Your task to perform on an android device: Go to Yahoo.com Image 0: 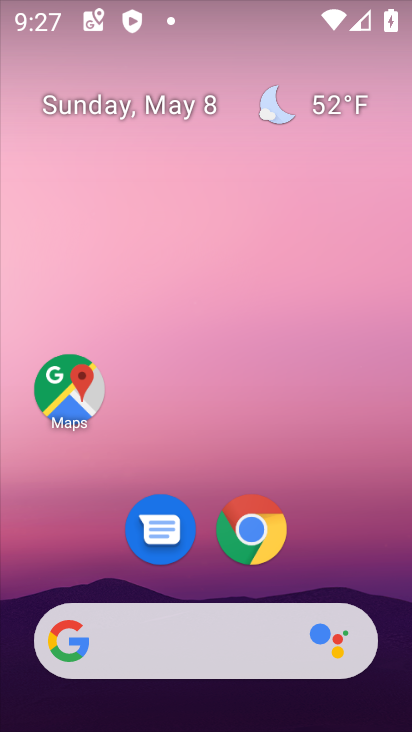
Step 0: drag from (372, 569) to (379, 137)
Your task to perform on an android device: Go to Yahoo.com Image 1: 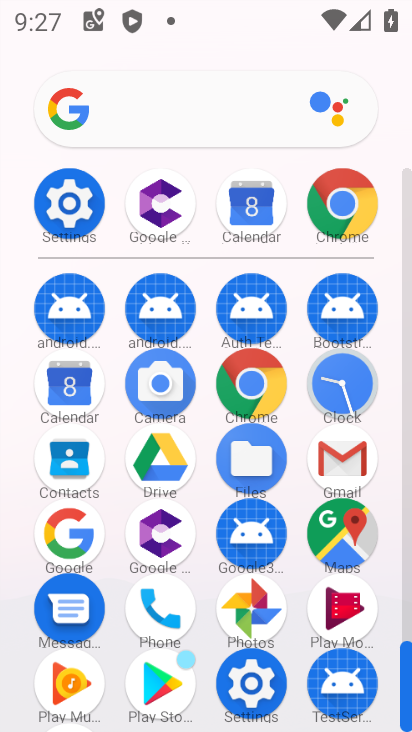
Step 1: drag from (193, 641) to (220, 350)
Your task to perform on an android device: Go to Yahoo.com Image 2: 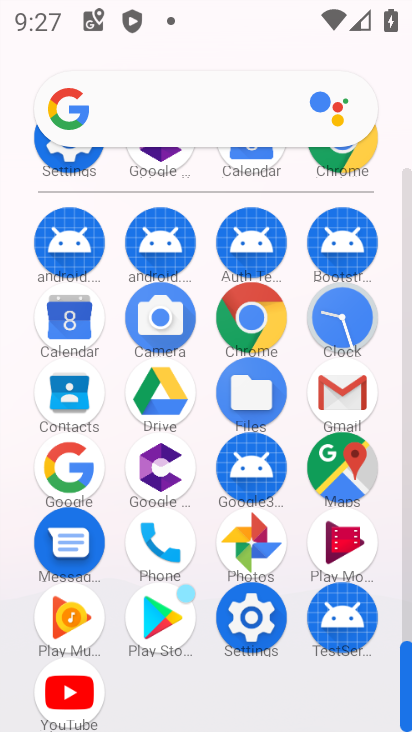
Step 2: click (245, 299)
Your task to perform on an android device: Go to Yahoo.com Image 3: 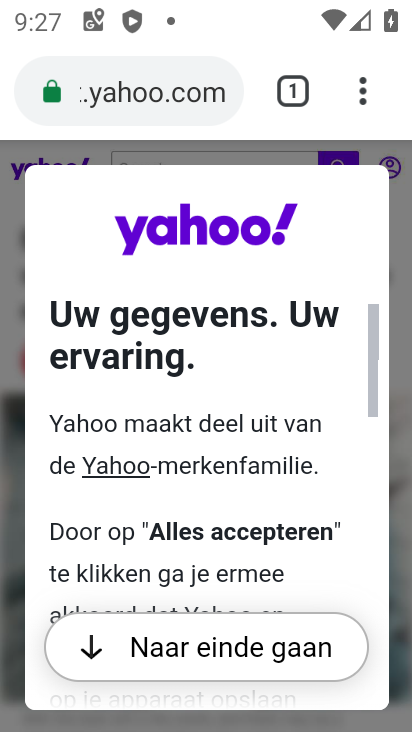
Step 3: click (166, 93)
Your task to perform on an android device: Go to Yahoo.com Image 4: 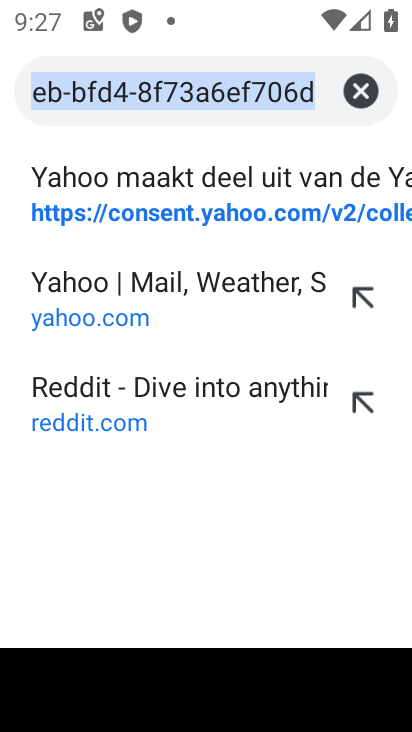
Step 4: click (364, 96)
Your task to perform on an android device: Go to Yahoo.com Image 5: 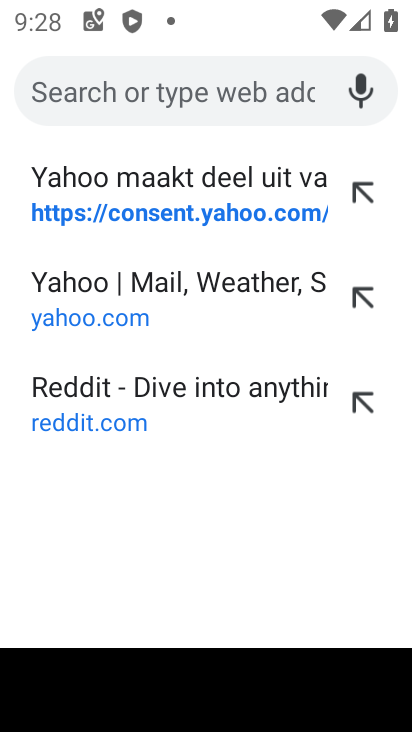
Step 5: type "yahoo.com"
Your task to perform on an android device: Go to Yahoo.com Image 6: 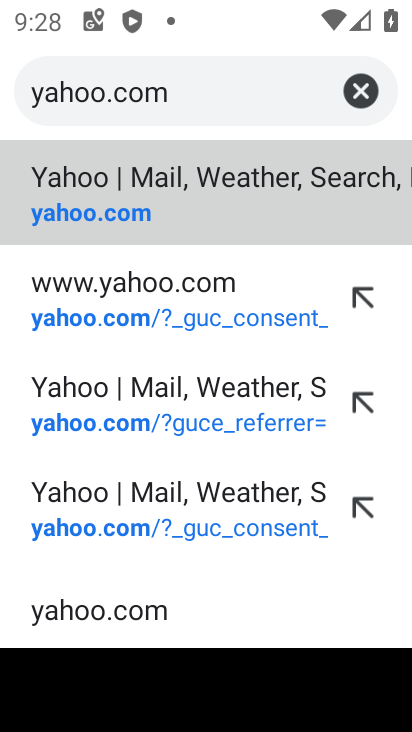
Step 6: click (141, 203)
Your task to perform on an android device: Go to Yahoo.com Image 7: 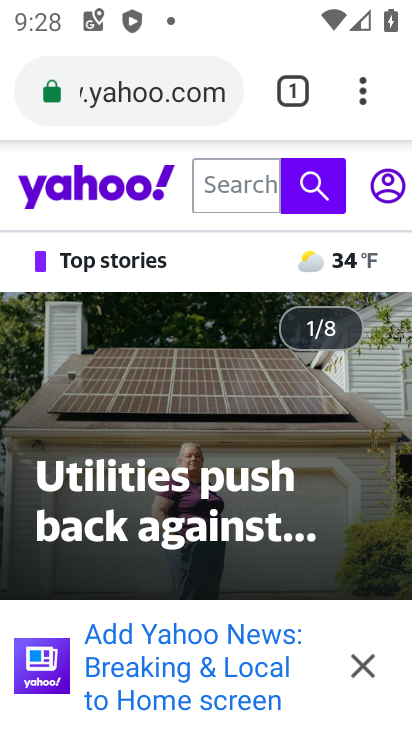
Step 7: drag from (189, 654) to (207, 399)
Your task to perform on an android device: Go to Yahoo.com Image 8: 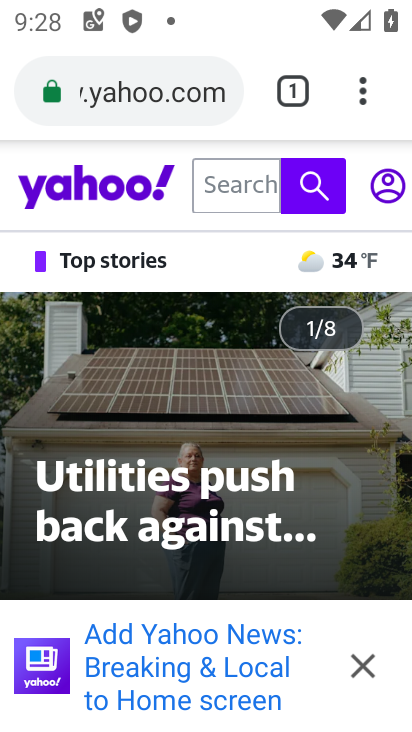
Step 8: drag from (298, 691) to (236, 374)
Your task to perform on an android device: Go to Yahoo.com Image 9: 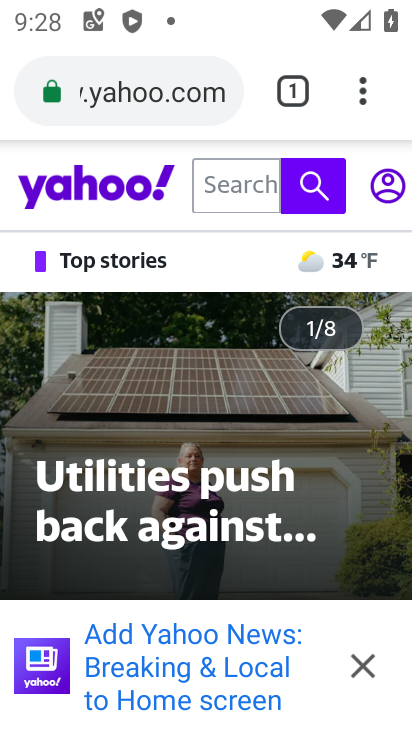
Step 9: click (369, 674)
Your task to perform on an android device: Go to Yahoo.com Image 10: 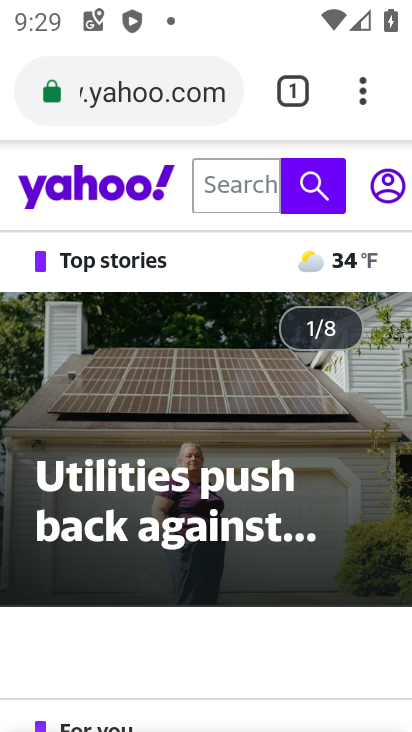
Step 10: task complete